Your task to perform on an android device: create a new album in the google photos Image 0: 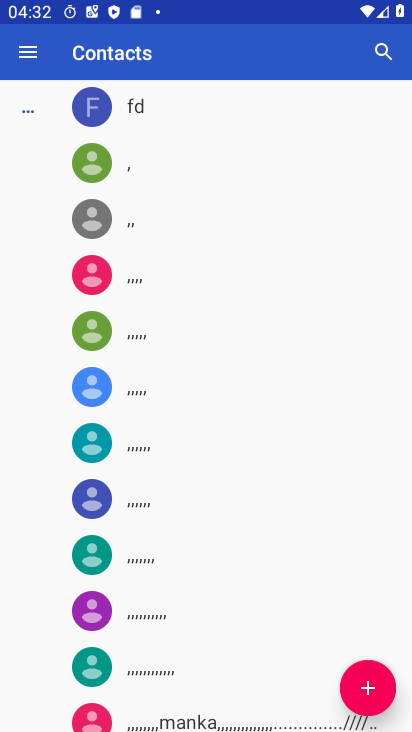
Step 0: press home button
Your task to perform on an android device: create a new album in the google photos Image 1: 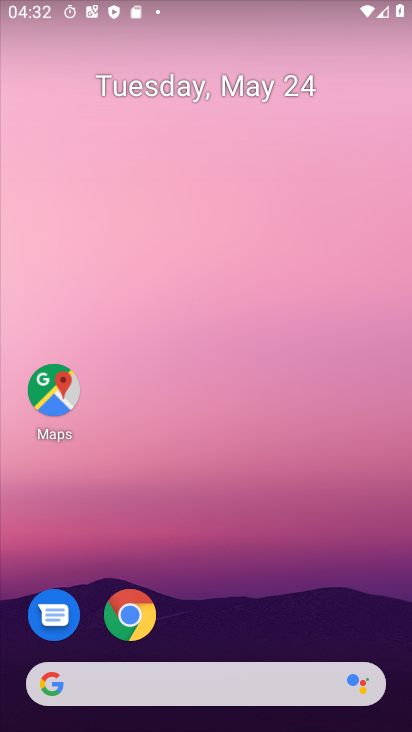
Step 1: drag from (188, 557) to (252, 190)
Your task to perform on an android device: create a new album in the google photos Image 2: 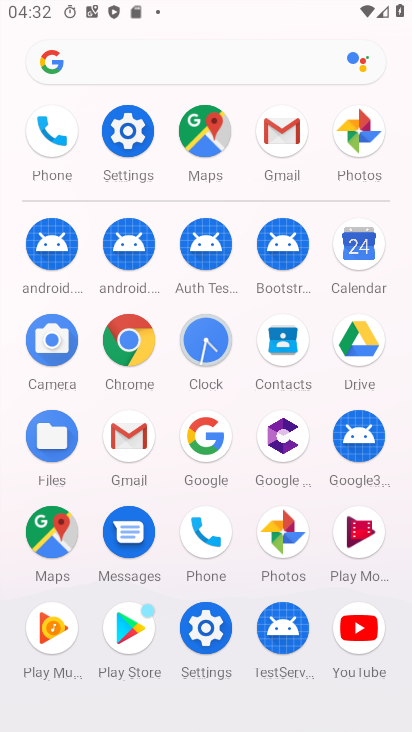
Step 2: click (277, 540)
Your task to perform on an android device: create a new album in the google photos Image 3: 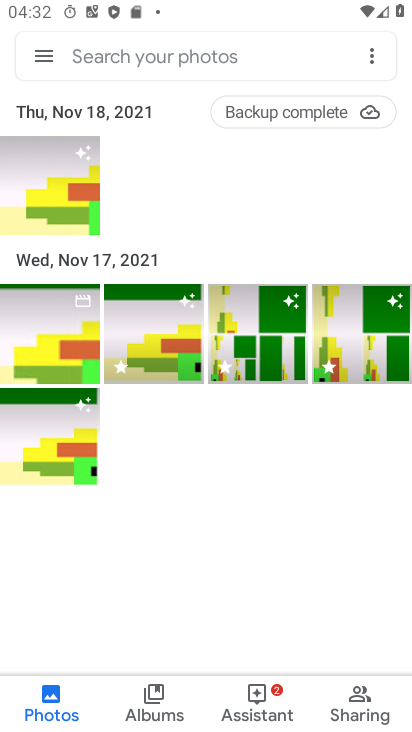
Step 3: click (367, 59)
Your task to perform on an android device: create a new album in the google photos Image 4: 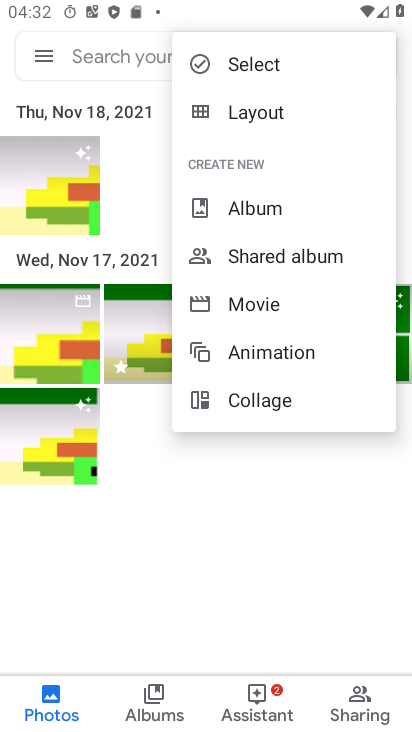
Step 4: click (234, 213)
Your task to perform on an android device: create a new album in the google photos Image 5: 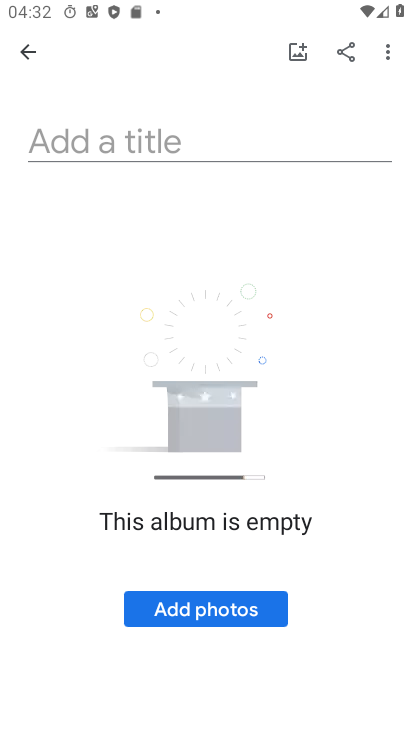
Step 5: click (104, 140)
Your task to perform on an android device: create a new album in the google photos Image 6: 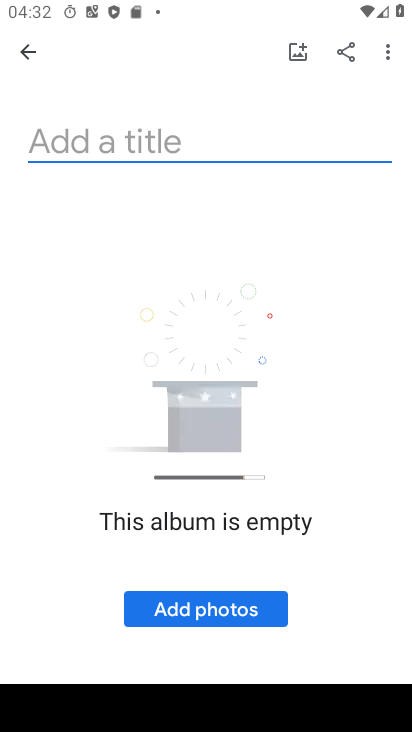
Step 6: type "jbjb"
Your task to perform on an android device: create a new album in the google photos Image 7: 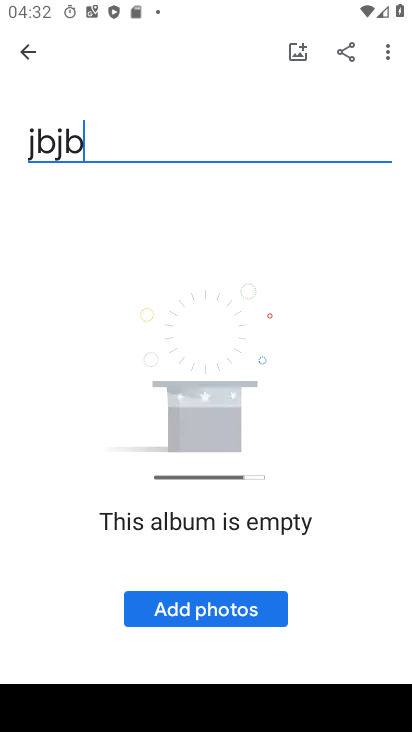
Step 7: click (213, 604)
Your task to perform on an android device: create a new album in the google photos Image 8: 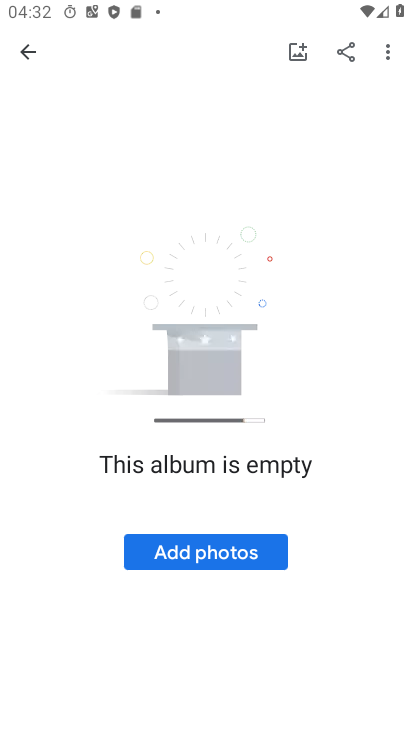
Step 8: click (188, 544)
Your task to perform on an android device: create a new album in the google photos Image 9: 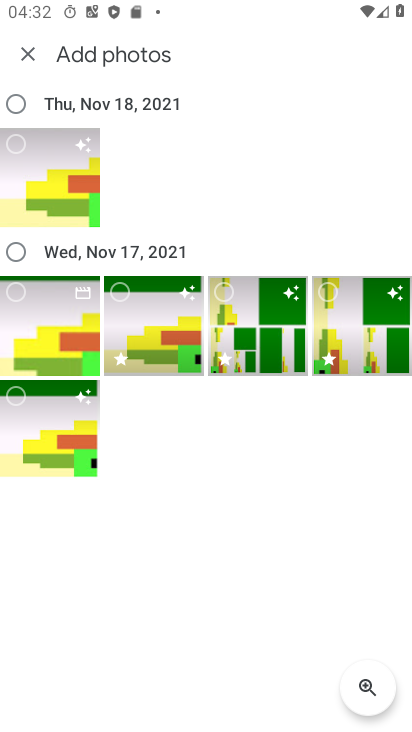
Step 9: click (15, 105)
Your task to perform on an android device: create a new album in the google photos Image 10: 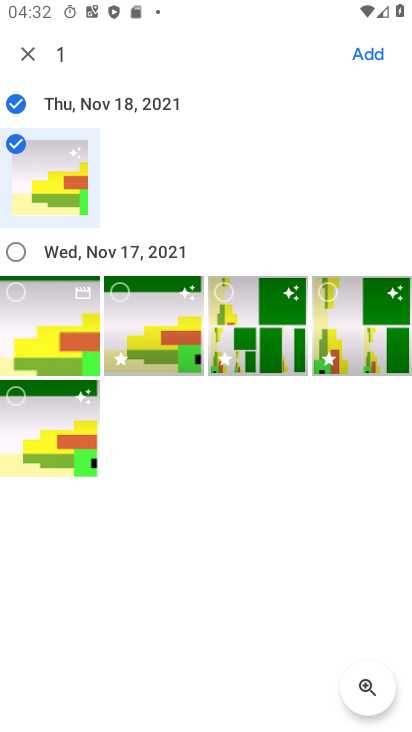
Step 10: click (9, 257)
Your task to perform on an android device: create a new album in the google photos Image 11: 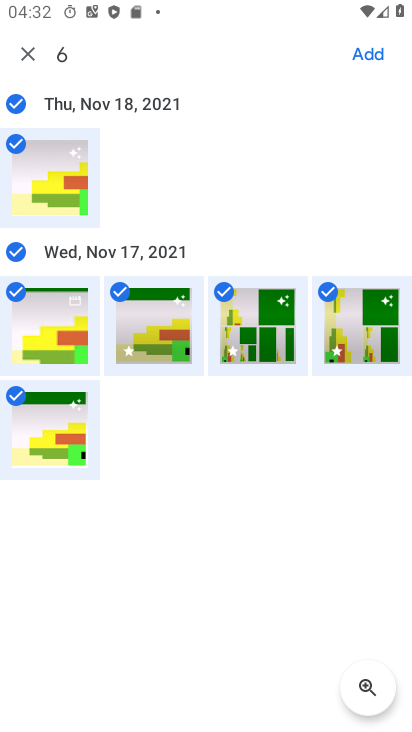
Step 11: click (367, 54)
Your task to perform on an android device: create a new album in the google photos Image 12: 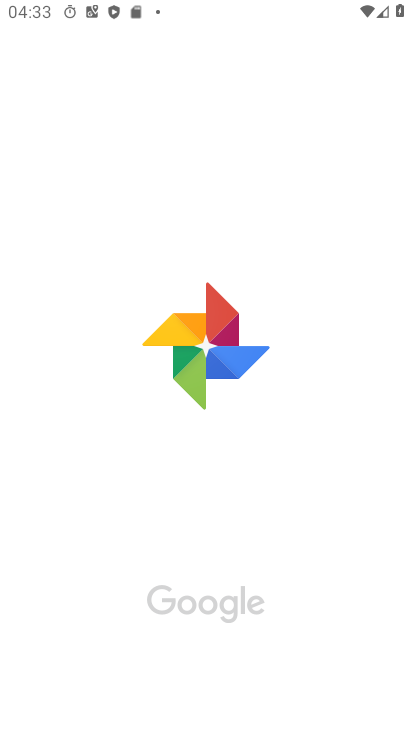
Step 12: task complete